Your task to perform on an android device: Go to accessibility settings Image 0: 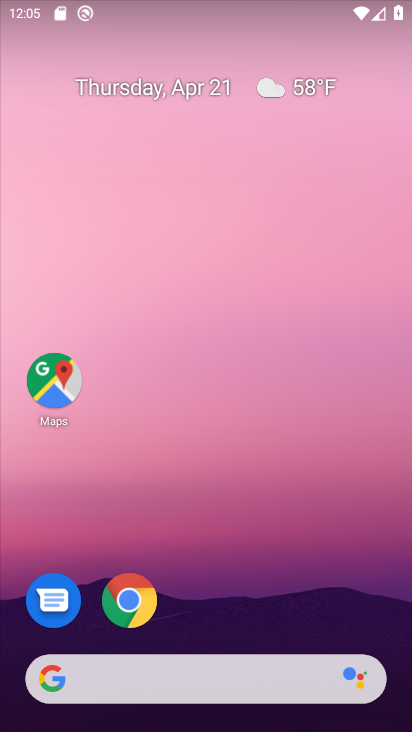
Step 0: drag from (257, 560) to (286, 146)
Your task to perform on an android device: Go to accessibility settings Image 1: 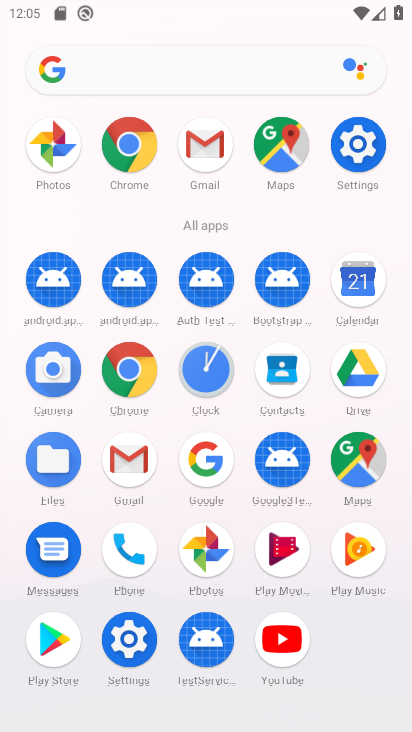
Step 1: click (358, 150)
Your task to perform on an android device: Go to accessibility settings Image 2: 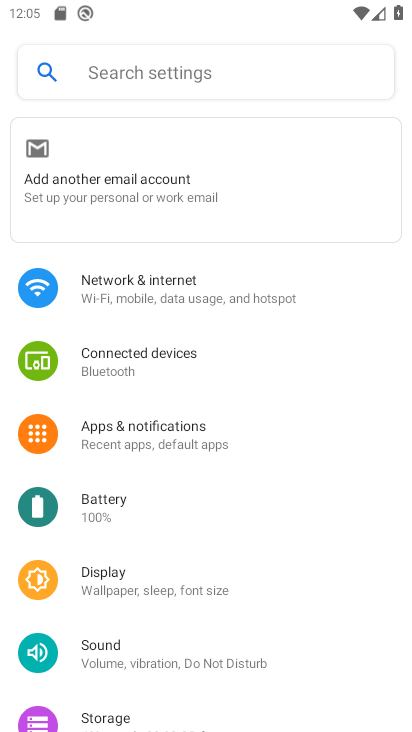
Step 2: drag from (261, 408) to (237, 175)
Your task to perform on an android device: Go to accessibility settings Image 3: 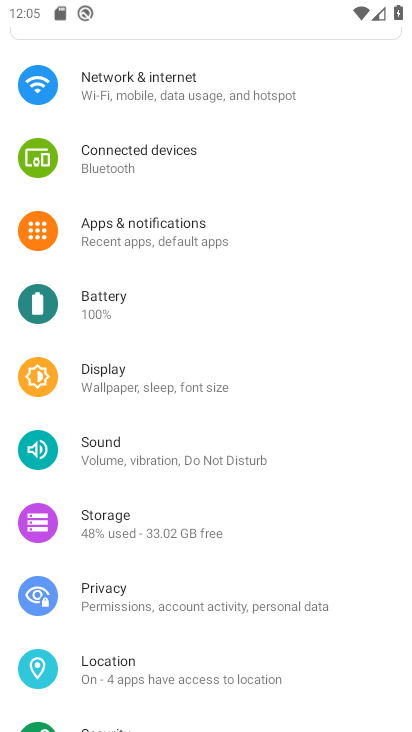
Step 3: drag from (318, 675) to (252, 246)
Your task to perform on an android device: Go to accessibility settings Image 4: 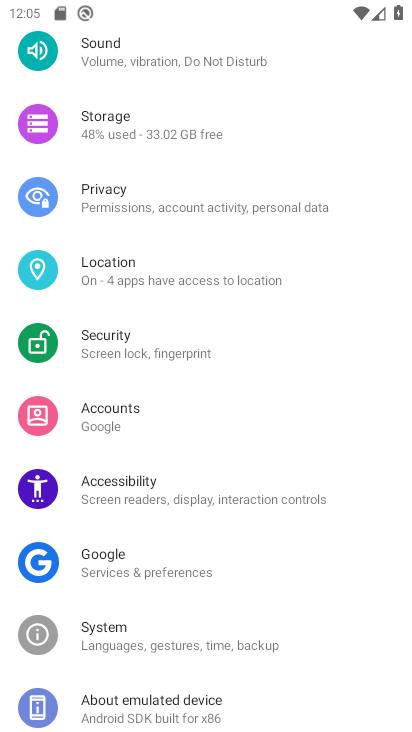
Step 4: click (232, 482)
Your task to perform on an android device: Go to accessibility settings Image 5: 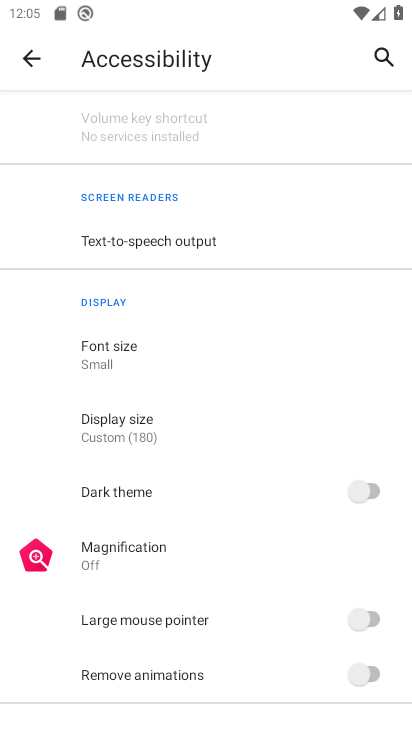
Step 5: task complete